Your task to perform on an android device: open chrome and create a bookmark for the current page Image 0: 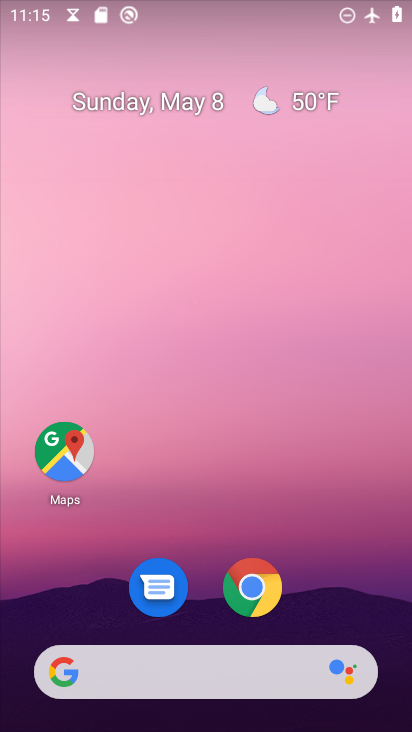
Step 0: click (249, 596)
Your task to perform on an android device: open chrome and create a bookmark for the current page Image 1: 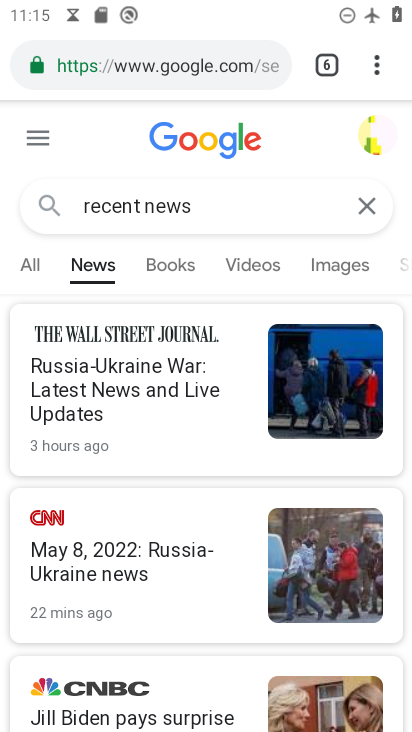
Step 1: task complete